Your task to perform on an android device: Search for vegetarian restaurants on Maps Image 0: 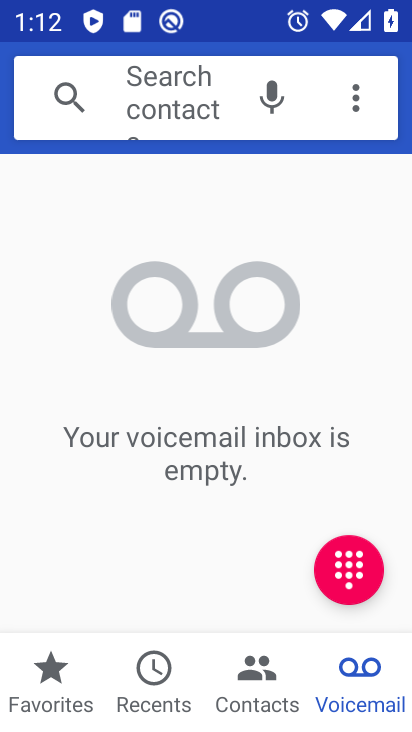
Step 0: press home button
Your task to perform on an android device: Search for vegetarian restaurants on Maps Image 1: 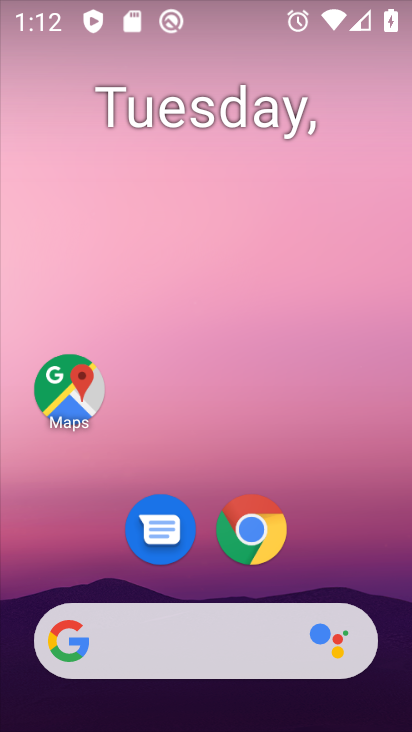
Step 1: drag from (393, 599) to (307, 74)
Your task to perform on an android device: Search for vegetarian restaurants on Maps Image 2: 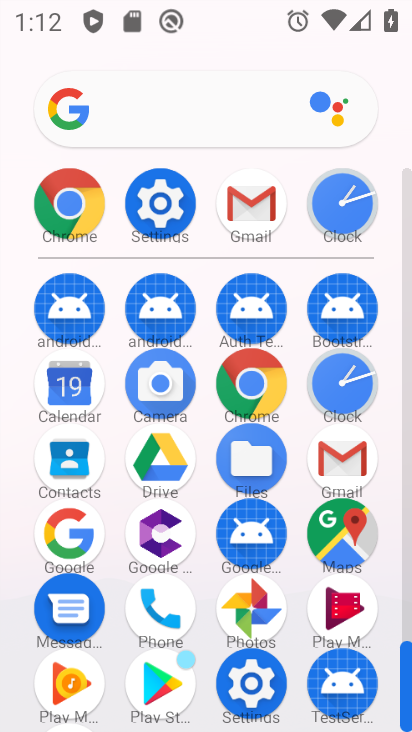
Step 2: click (331, 528)
Your task to perform on an android device: Search for vegetarian restaurants on Maps Image 3: 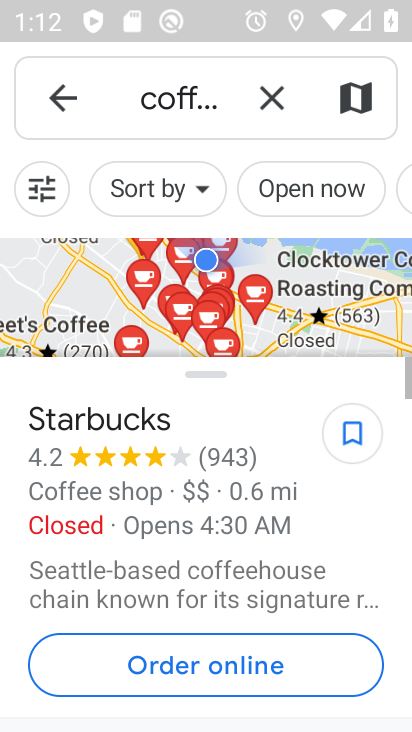
Step 3: click (271, 100)
Your task to perform on an android device: Search for vegetarian restaurants on Maps Image 4: 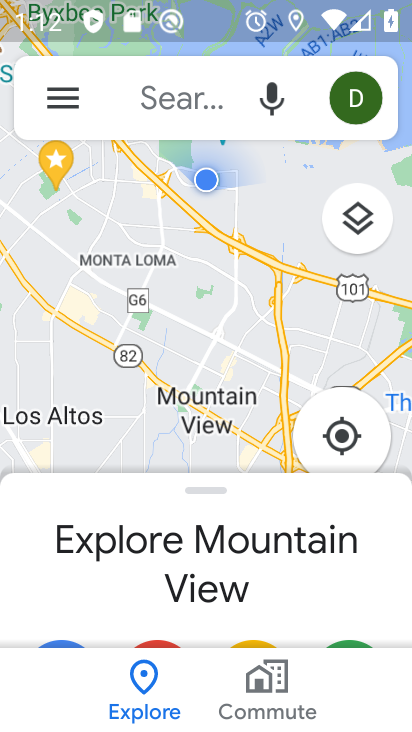
Step 4: click (177, 103)
Your task to perform on an android device: Search for vegetarian restaurants on Maps Image 5: 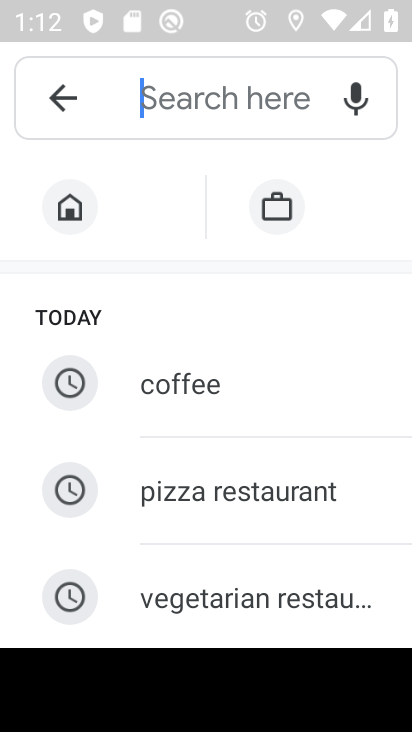
Step 5: click (234, 584)
Your task to perform on an android device: Search for vegetarian restaurants on Maps Image 6: 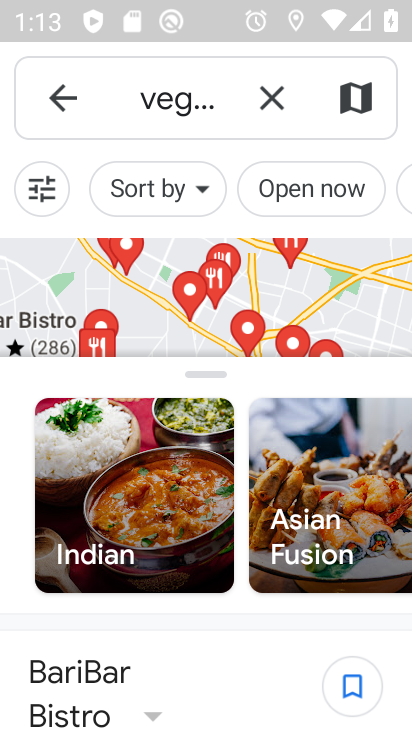
Step 6: task complete